Your task to perform on an android device: What is the news today? Image 0: 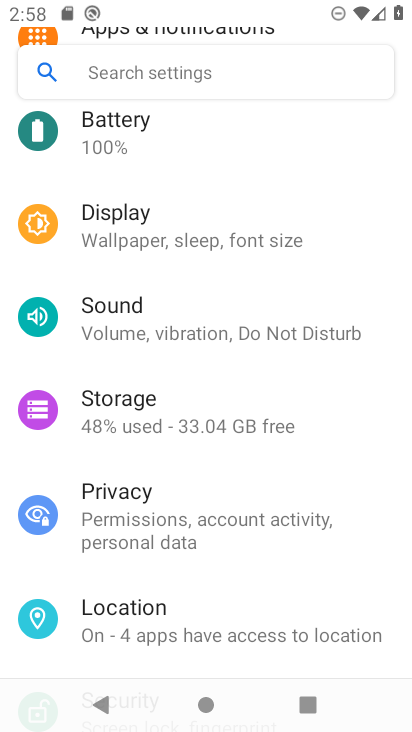
Step 0: drag from (253, 194) to (341, 659)
Your task to perform on an android device: What is the news today? Image 1: 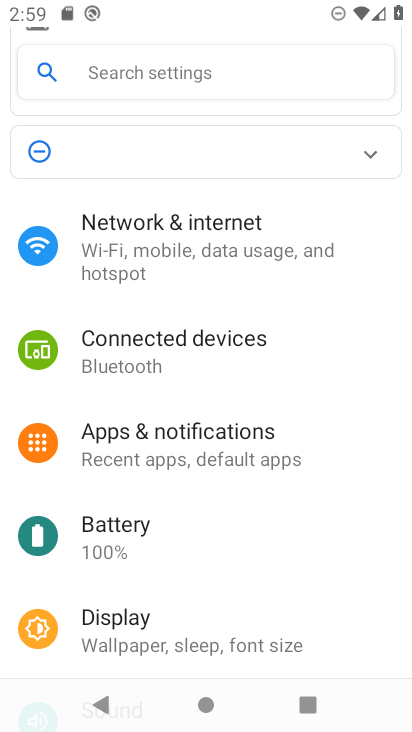
Step 1: press home button
Your task to perform on an android device: What is the news today? Image 2: 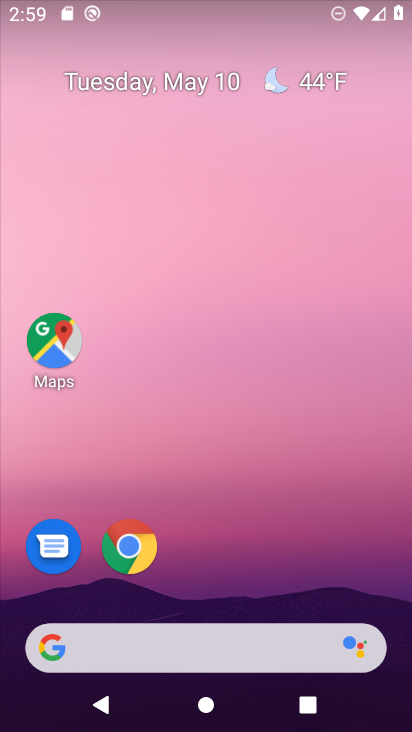
Step 2: drag from (334, 634) to (345, 18)
Your task to perform on an android device: What is the news today? Image 3: 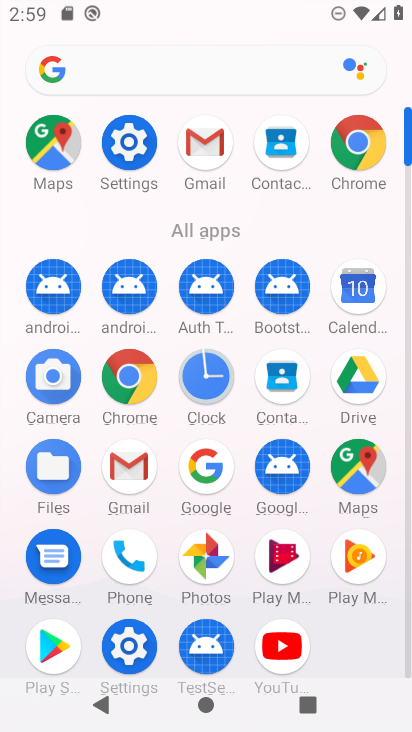
Step 3: click (123, 368)
Your task to perform on an android device: What is the news today? Image 4: 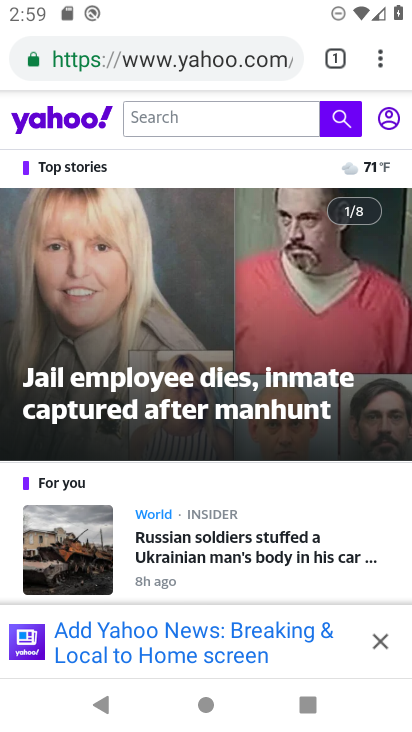
Step 4: click (239, 57)
Your task to perform on an android device: What is the news today? Image 5: 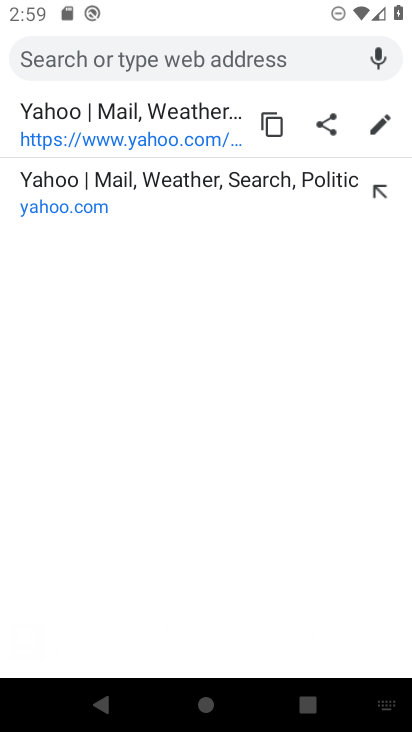
Step 5: type "news today"
Your task to perform on an android device: What is the news today? Image 6: 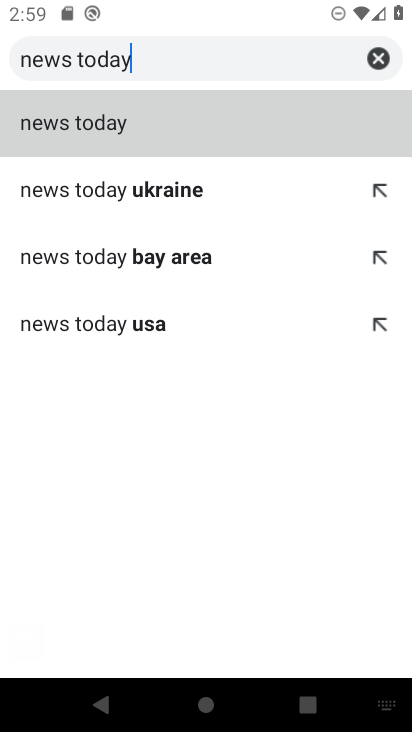
Step 6: click (157, 138)
Your task to perform on an android device: What is the news today? Image 7: 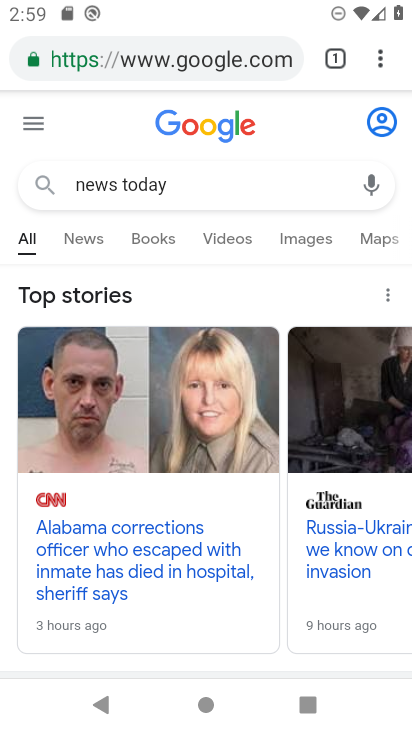
Step 7: task complete